Your task to perform on an android device: Open a new private tab in Chrome Image 0: 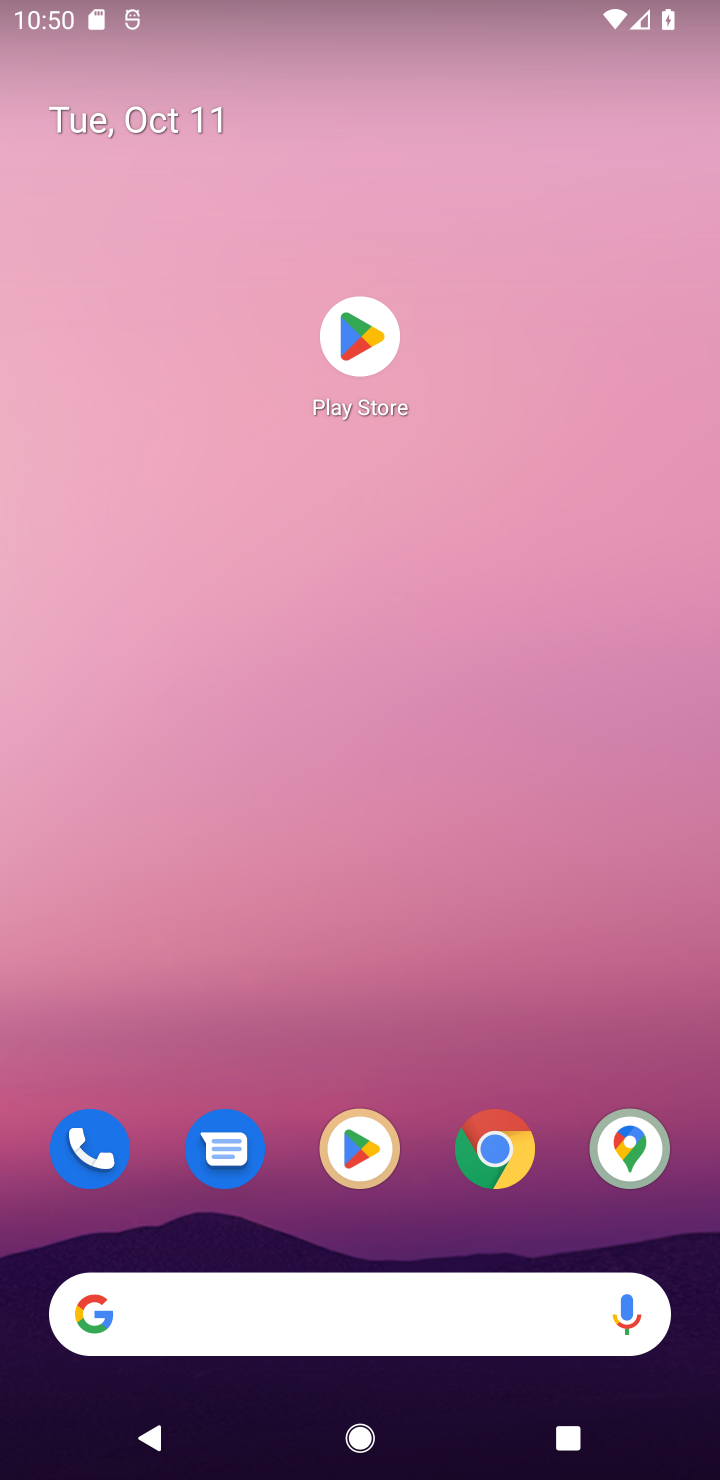
Step 0: click (490, 1145)
Your task to perform on an android device: Open a new private tab in Chrome Image 1: 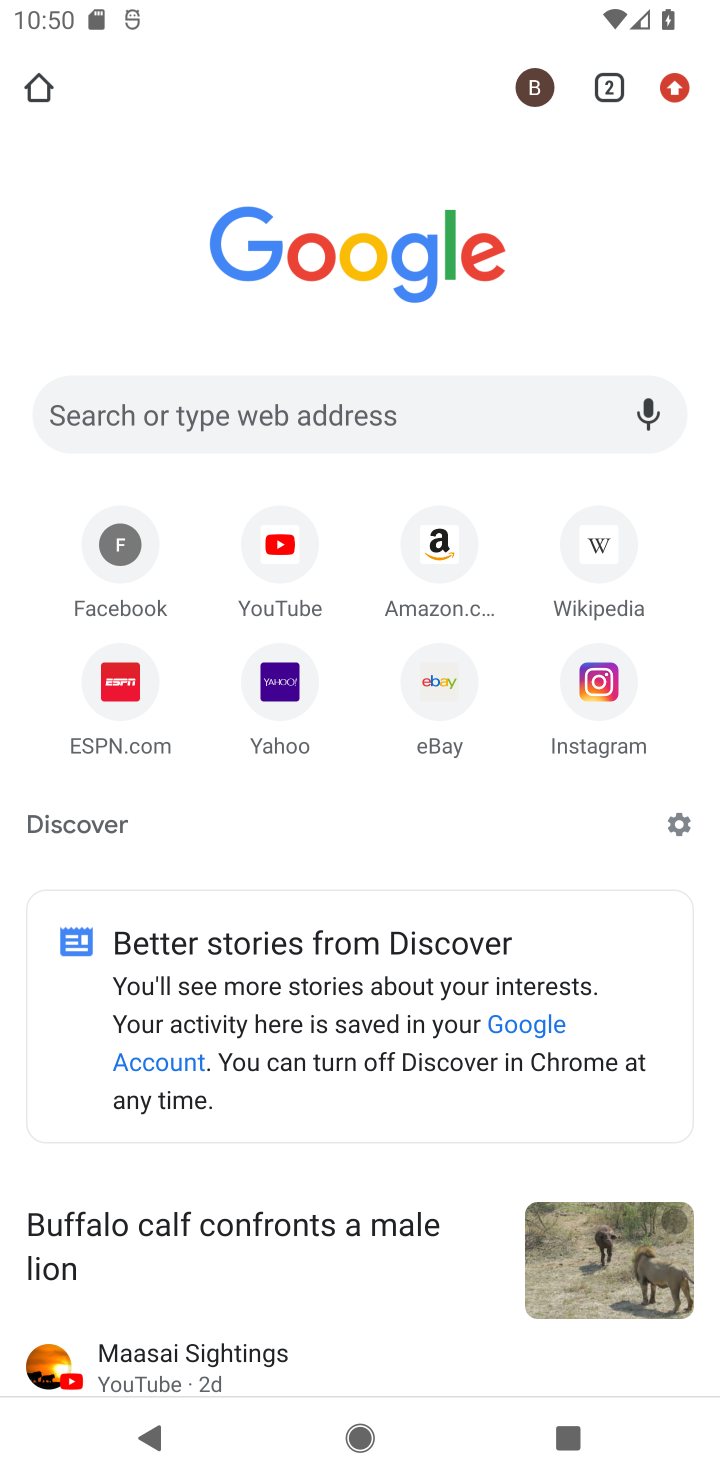
Step 1: click (612, 92)
Your task to perform on an android device: Open a new private tab in Chrome Image 2: 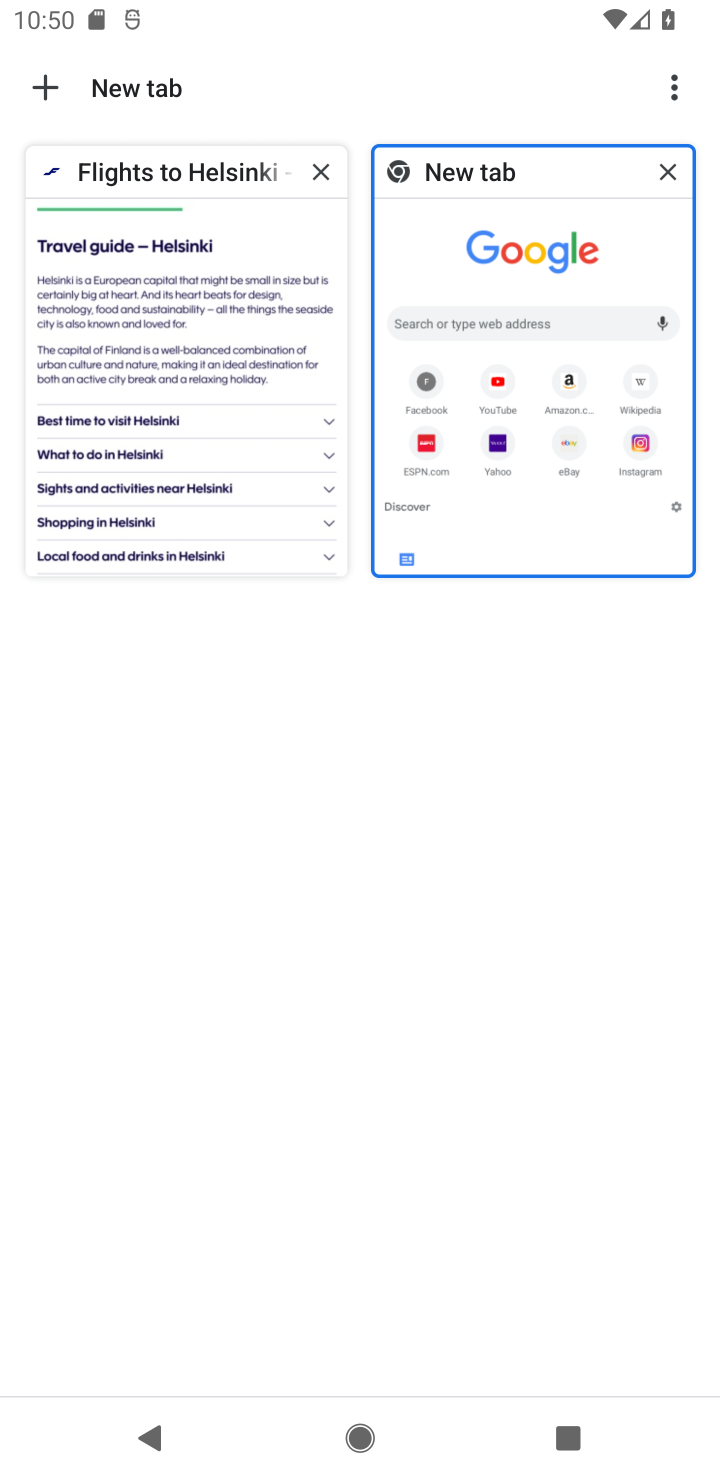
Step 2: click (51, 77)
Your task to perform on an android device: Open a new private tab in Chrome Image 3: 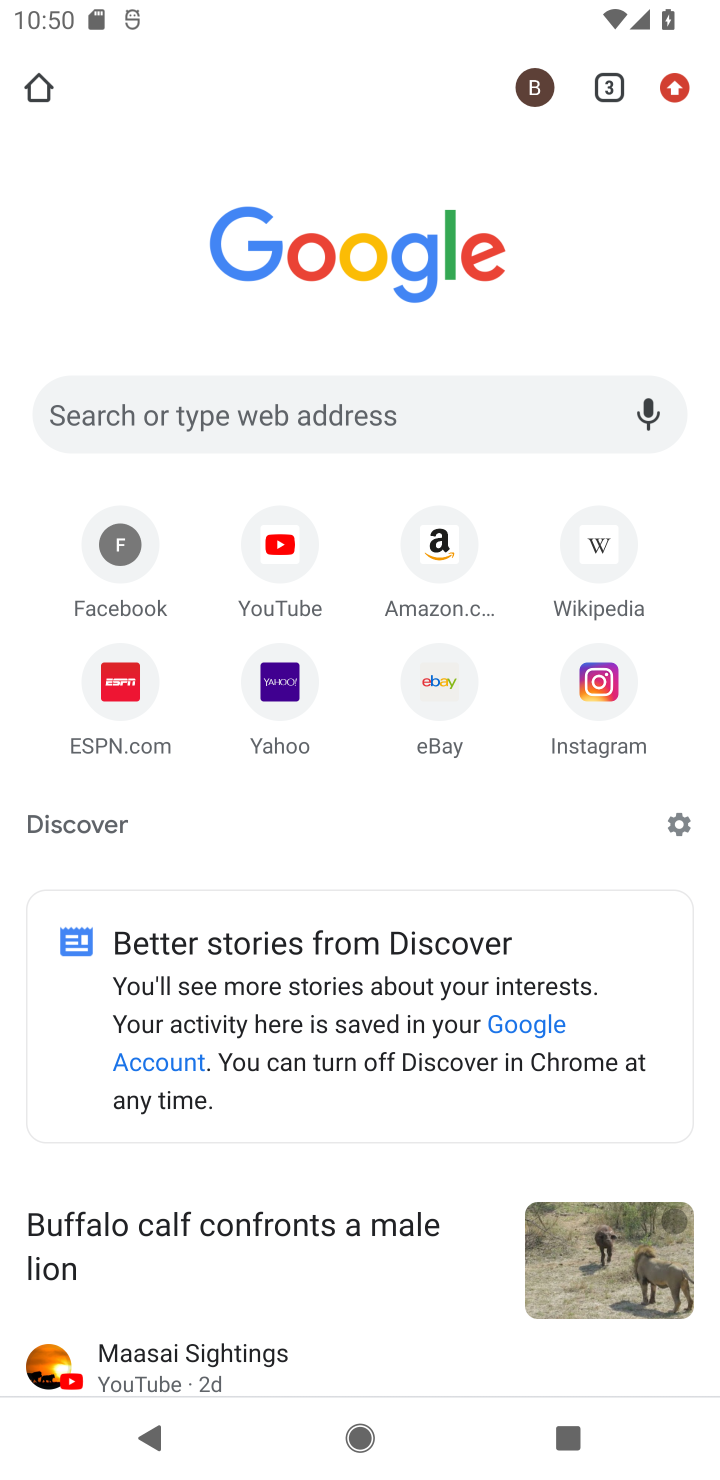
Step 3: task complete